Your task to perform on an android device: toggle priority inbox in the gmail app Image 0: 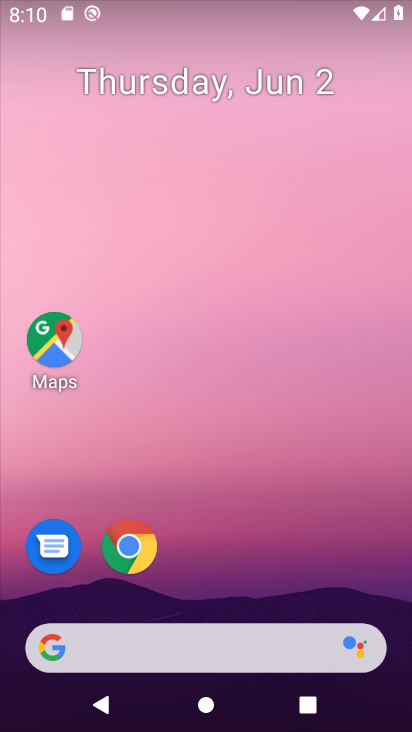
Step 0: drag from (287, 707) to (210, 43)
Your task to perform on an android device: toggle priority inbox in the gmail app Image 1: 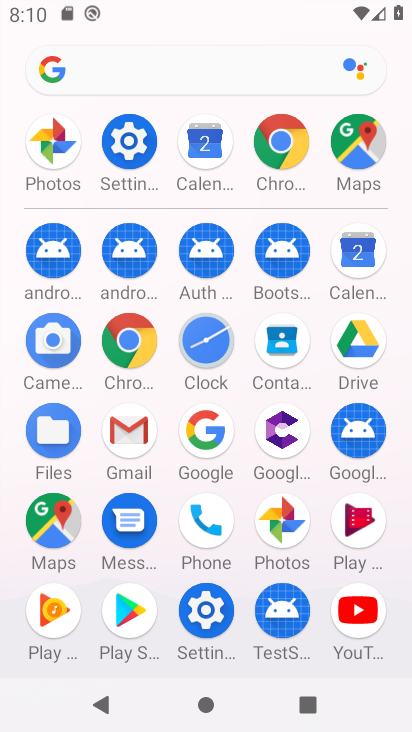
Step 1: click (120, 431)
Your task to perform on an android device: toggle priority inbox in the gmail app Image 2: 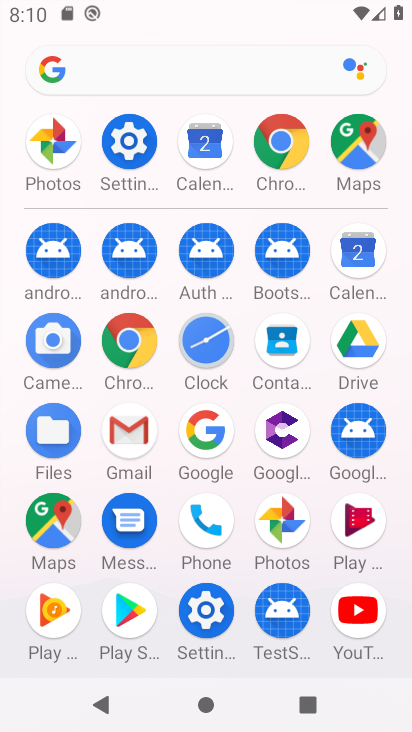
Step 2: click (121, 431)
Your task to perform on an android device: toggle priority inbox in the gmail app Image 3: 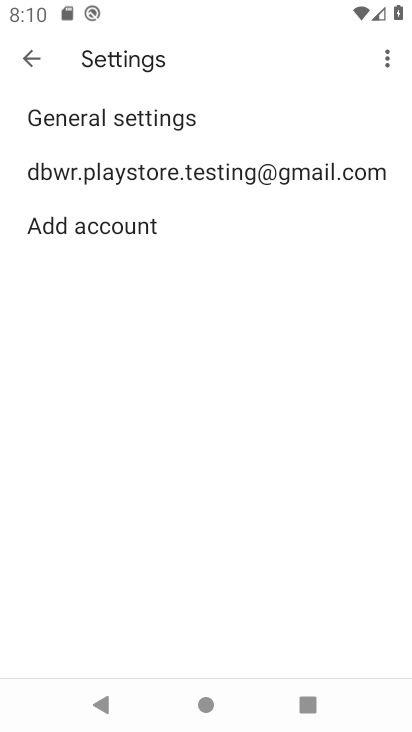
Step 3: click (150, 170)
Your task to perform on an android device: toggle priority inbox in the gmail app Image 4: 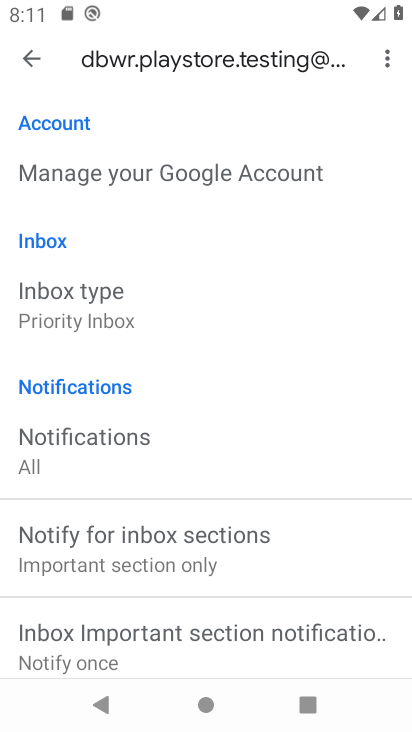
Step 4: click (43, 303)
Your task to perform on an android device: toggle priority inbox in the gmail app Image 5: 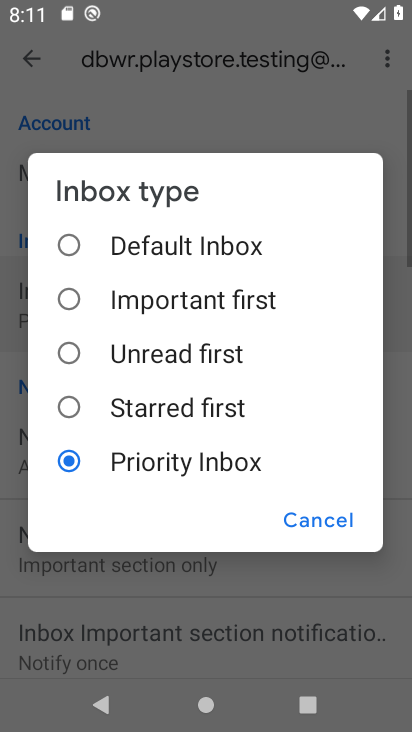
Step 5: click (70, 320)
Your task to perform on an android device: toggle priority inbox in the gmail app Image 6: 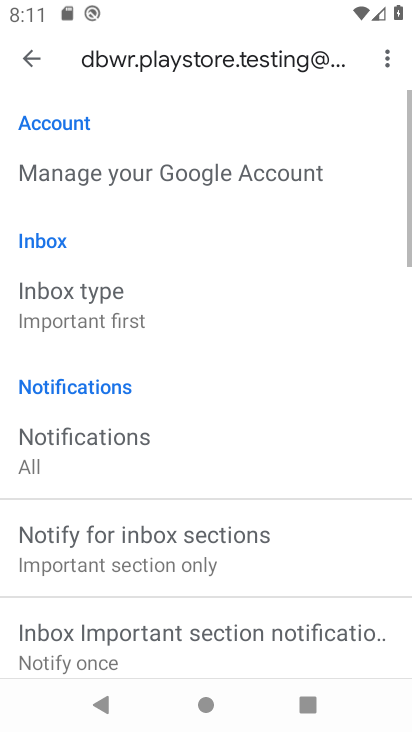
Step 6: click (85, 304)
Your task to perform on an android device: toggle priority inbox in the gmail app Image 7: 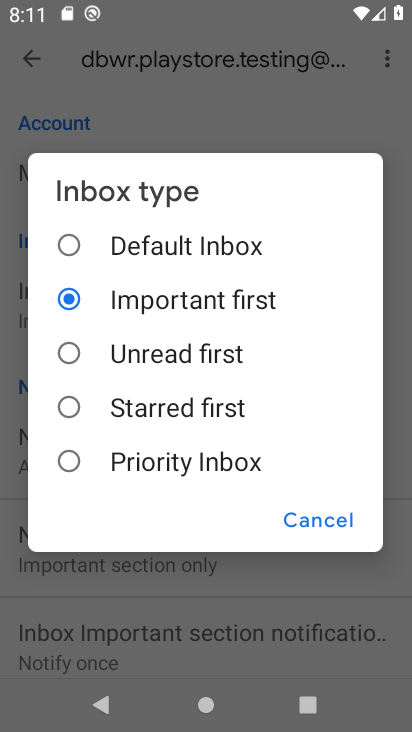
Step 7: click (308, 525)
Your task to perform on an android device: toggle priority inbox in the gmail app Image 8: 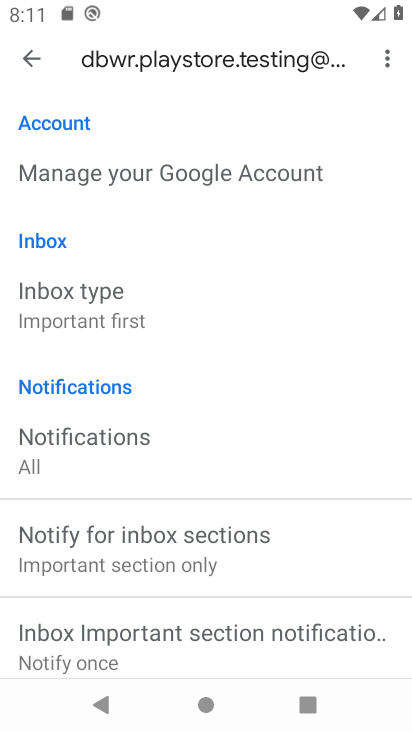
Step 8: task complete